Your task to perform on an android device: add a label to a message in the gmail app Image 0: 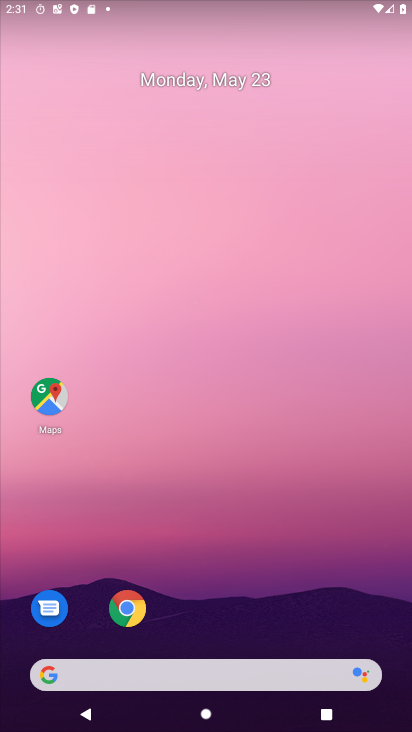
Step 0: drag from (206, 616) to (270, 12)
Your task to perform on an android device: add a label to a message in the gmail app Image 1: 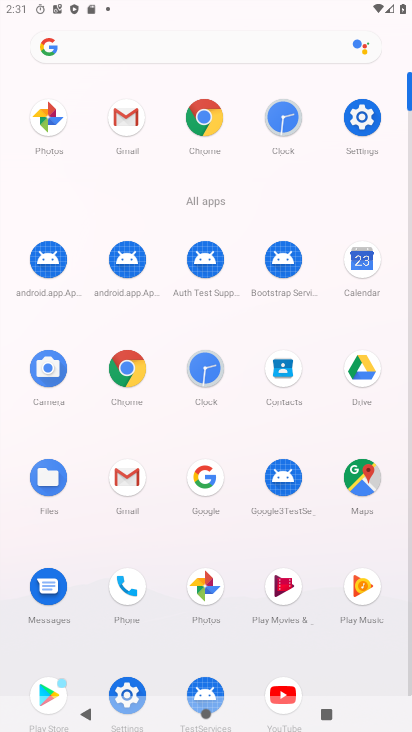
Step 1: click (139, 489)
Your task to perform on an android device: add a label to a message in the gmail app Image 2: 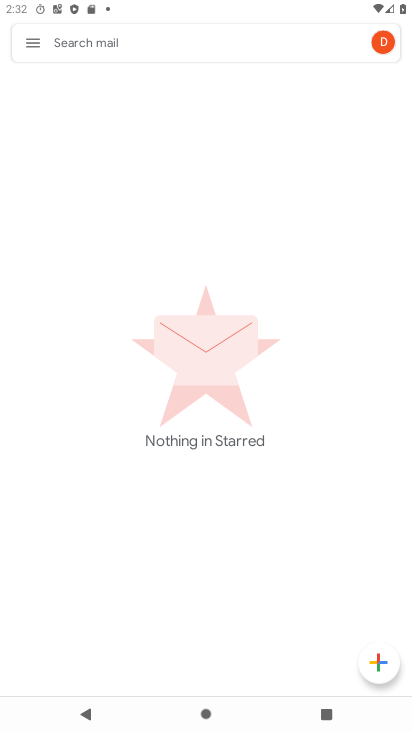
Step 2: click (35, 37)
Your task to perform on an android device: add a label to a message in the gmail app Image 3: 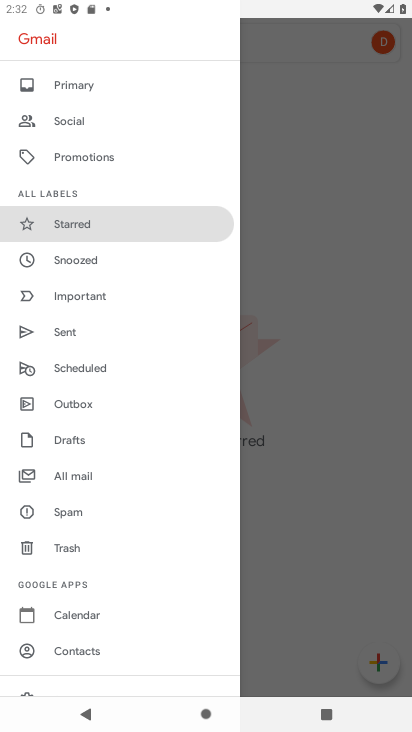
Step 3: click (81, 475)
Your task to perform on an android device: add a label to a message in the gmail app Image 4: 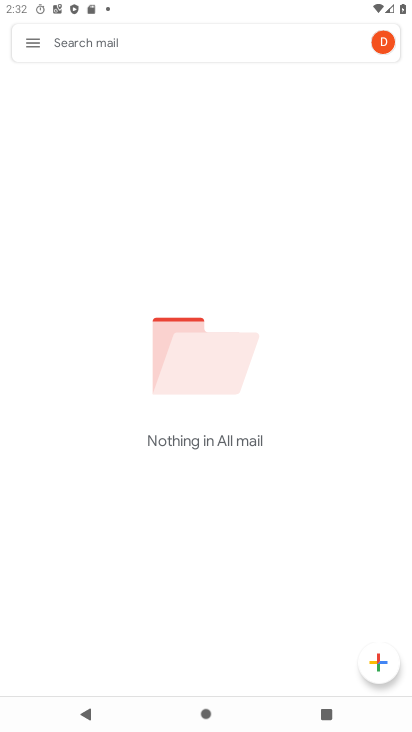
Step 4: task complete